Your task to perform on an android device: Add "bose soundsport free" to the cart on costco.com Image 0: 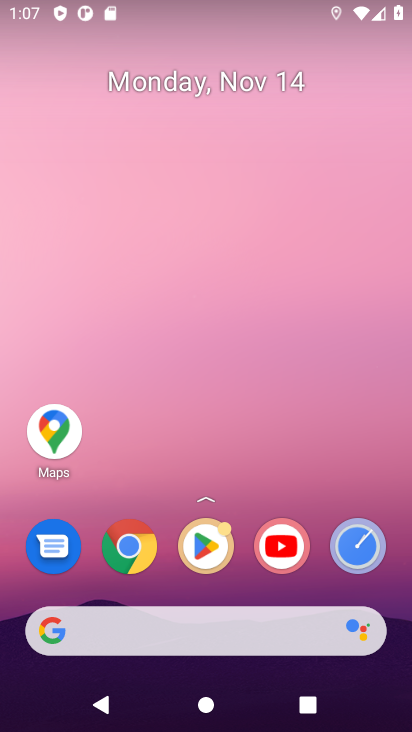
Step 0: drag from (205, 585) to (180, 49)
Your task to perform on an android device: Add "bose soundsport free" to the cart on costco.com Image 1: 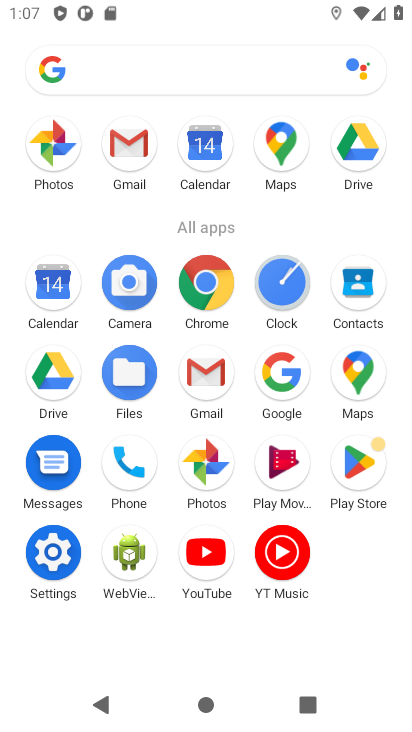
Step 1: click (189, 291)
Your task to perform on an android device: Add "bose soundsport free" to the cart on costco.com Image 2: 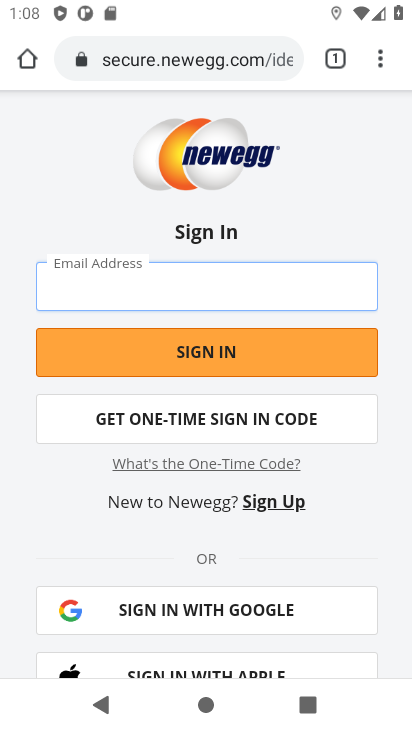
Step 2: click (232, 53)
Your task to perform on an android device: Add "bose soundsport free" to the cart on costco.com Image 3: 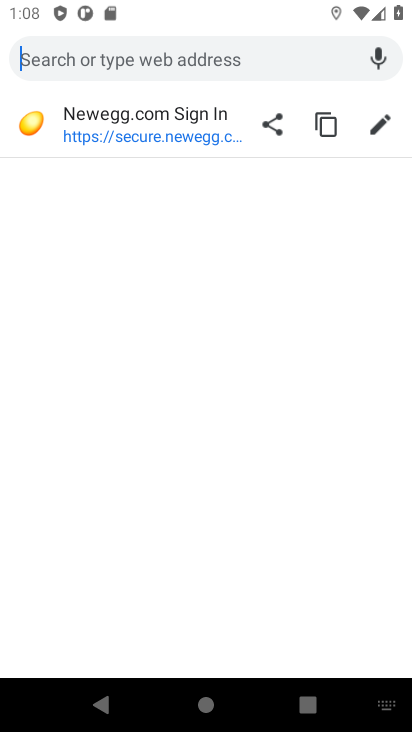
Step 3: type "costco.com"
Your task to perform on an android device: Add "bose soundsport free" to the cart on costco.com Image 4: 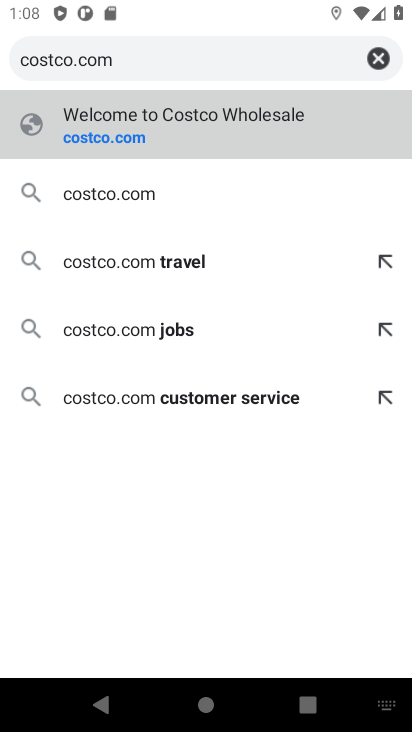
Step 4: press enter
Your task to perform on an android device: Add "bose soundsport free" to the cart on costco.com Image 5: 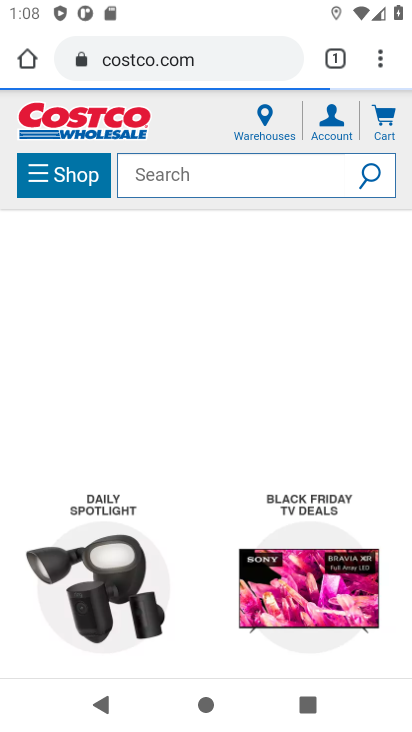
Step 5: click (196, 183)
Your task to perform on an android device: Add "bose soundsport free" to the cart on costco.com Image 6: 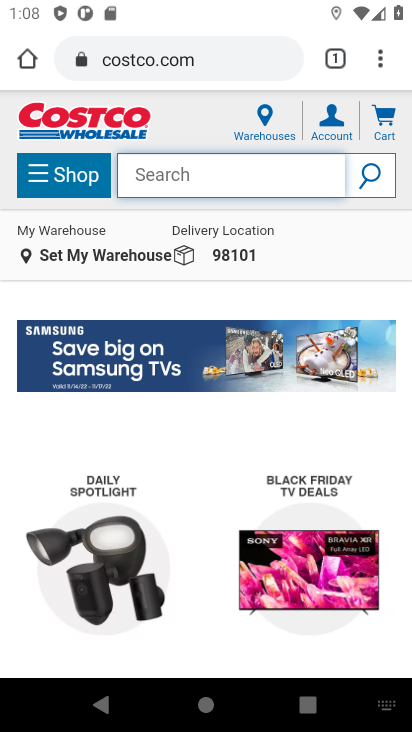
Step 6: click (250, 179)
Your task to perform on an android device: Add "bose soundsport free" to the cart on costco.com Image 7: 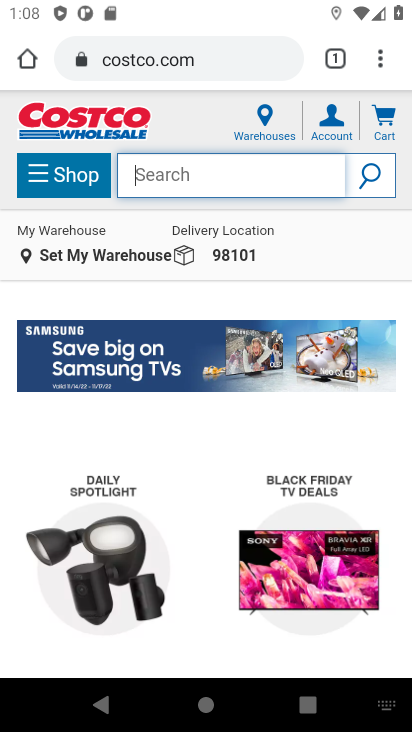
Step 7: type "bose soundsport free"
Your task to perform on an android device: Add "bose soundsport free" to the cart on costco.com Image 8: 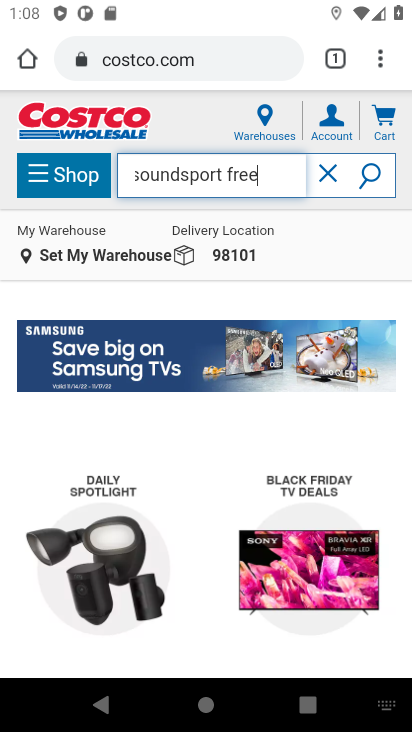
Step 8: press enter
Your task to perform on an android device: Add "bose soundsport free" to the cart on costco.com Image 9: 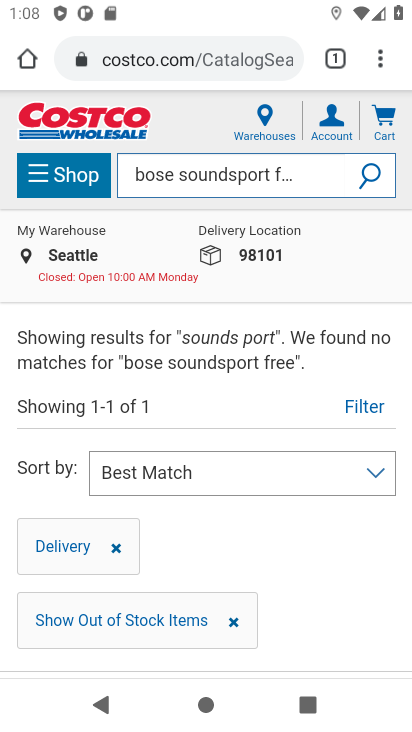
Step 9: drag from (272, 543) to (304, 182)
Your task to perform on an android device: Add "bose soundsport free" to the cart on costco.com Image 10: 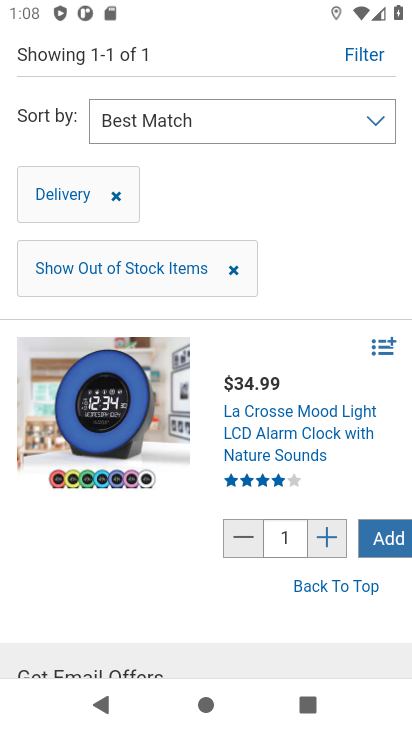
Step 10: click (374, 544)
Your task to perform on an android device: Add "bose soundsport free" to the cart on costco.com Image 11: 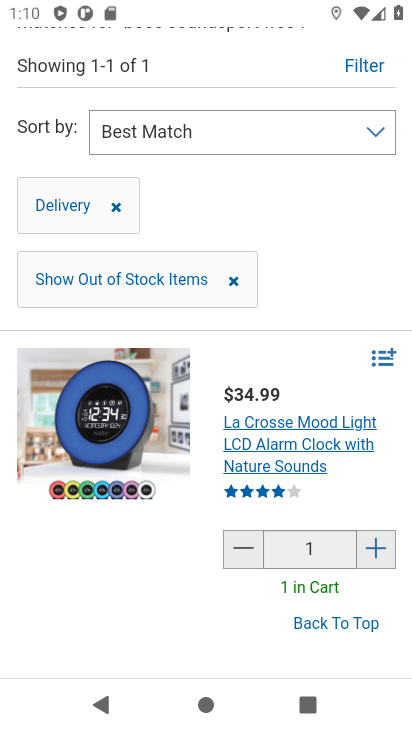
Step 11: task complete